Your task to perform on an android device: choose inbox layout in the gmail app Image 0: 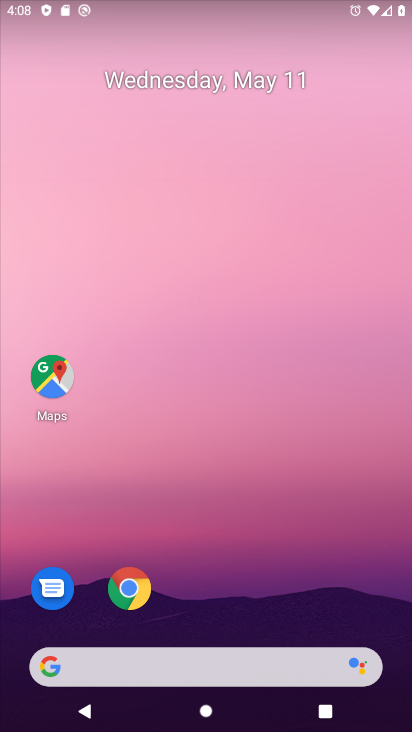
Step 0: drag from (323, 596) to (288, 162)
Your task to perform on an android device: choose inbox layout in the gmail app Image 1: 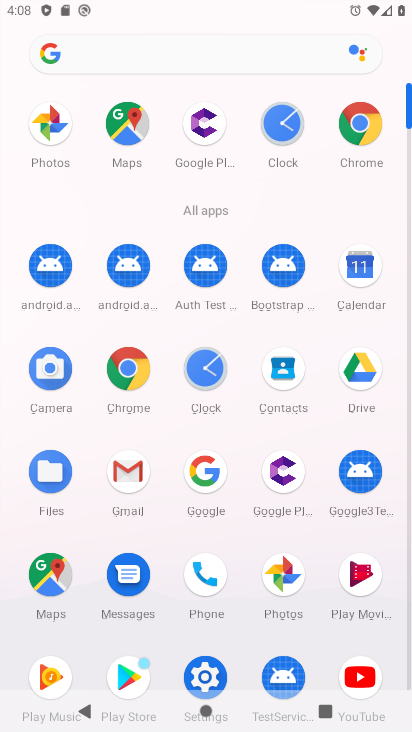
Step 1: click (131, 465)
Your task to perform on an android device: choose inbox layout in the gmail app Image 2: 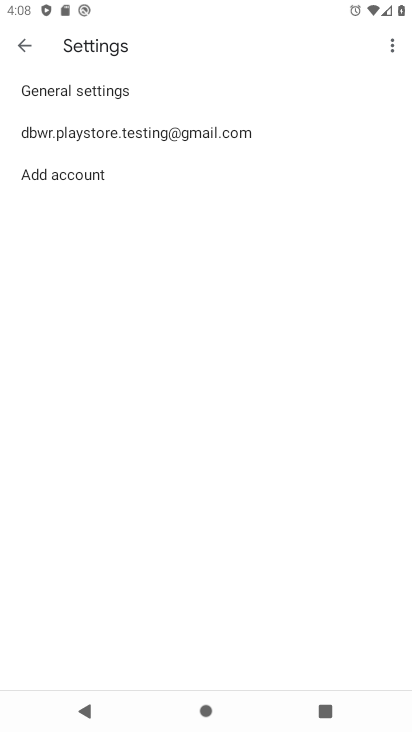
Step 2: click (119, 136)
Your task to perform on an android device: choose inbox layout in the gmail app Image 3: 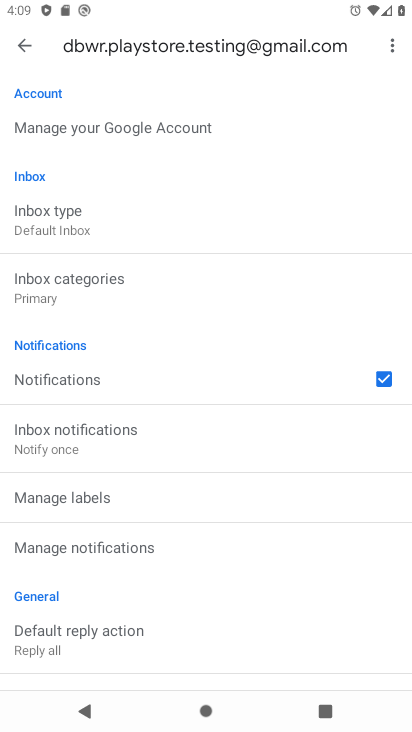
Step 3: click (86, 225)
Your task to perform on an android device: choose inbox layout in the gmail app Image 4: 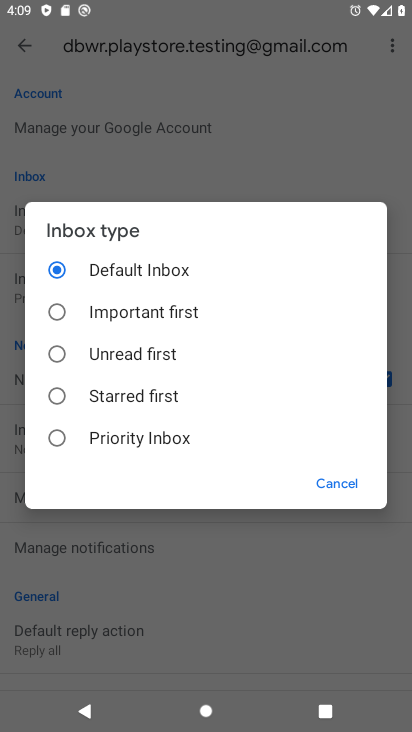
Step 4: click (68, 360)
Your task to perform on an android device: choose inbox layout in the gmail app Image 5: 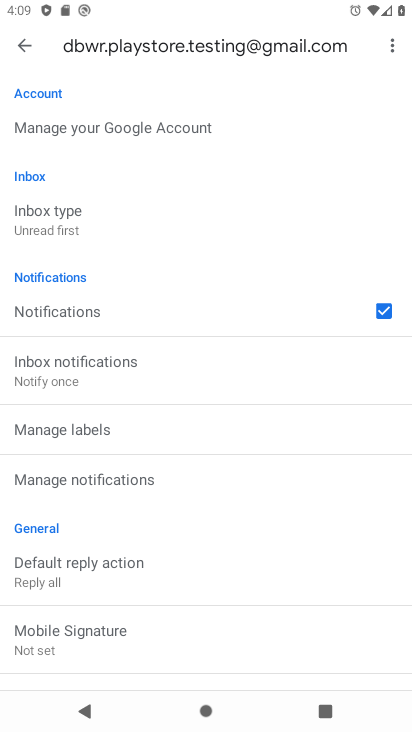
Step 5: task complete